Your task to perform on an android device: Open the map Image 0: 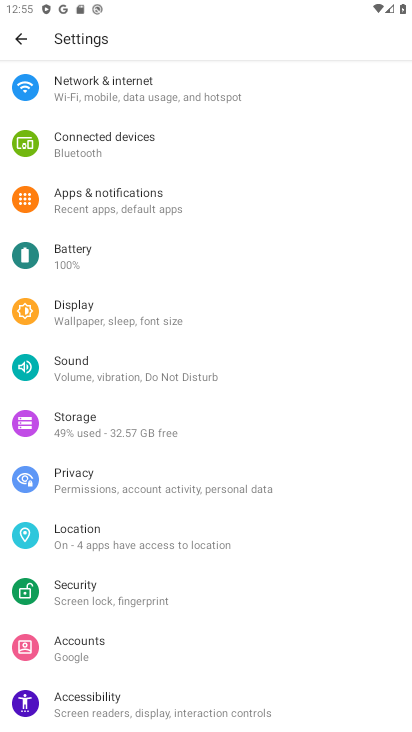
Step 0: press home button
Your task to perform on an android device: Open the map Image 1: 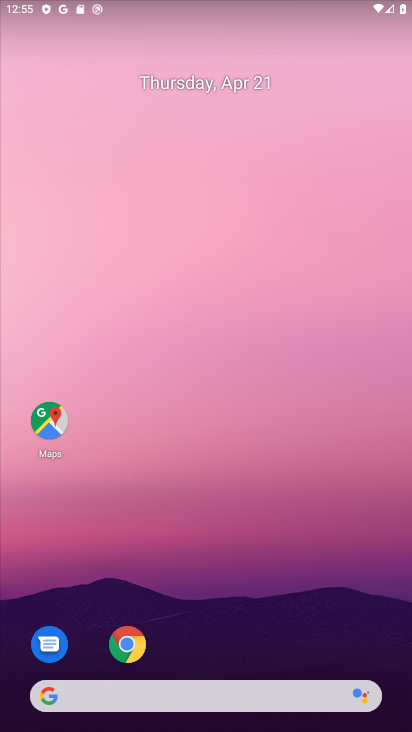
Step 1: click (42, 417)
Your task to perform on an android device: Open the map Image 2: 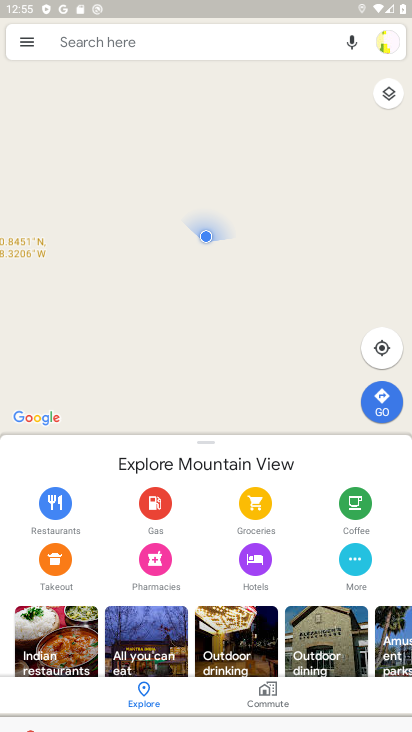
Step 2: task complete